Your task to perform on an android device: Open calendar and show me the fourth week of next month Image 0: 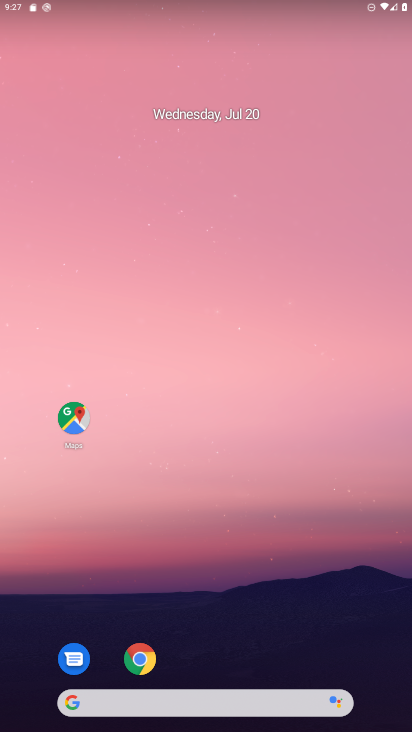
Step 0: drag from (298, 645) to (217, 90)
Your task to perform on an android device: Open calendar and show me the fourth week of next month Image 1: 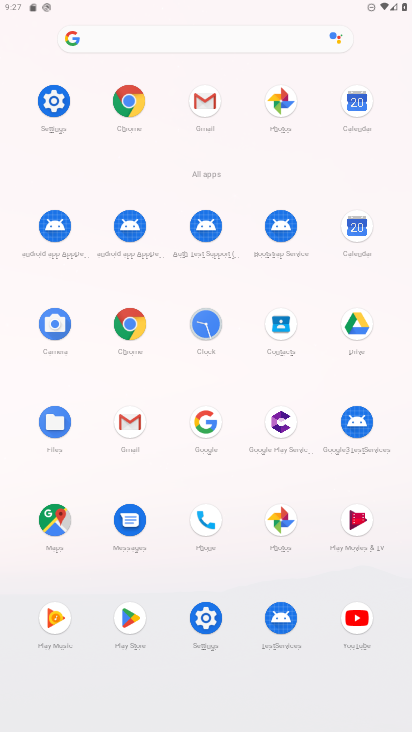
Step 1: click (352, 227)
Your task to perform on an android device: Open calendar and show me the fourth week of next month Image 2: 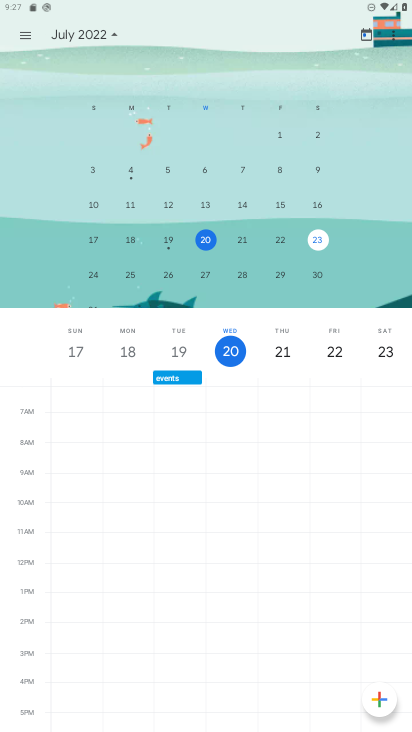
Step 2: drag from (333, 172) to (33, 190)
Your task to perform on an android device: Open calendar and show me the fourth week of next month Image 3: 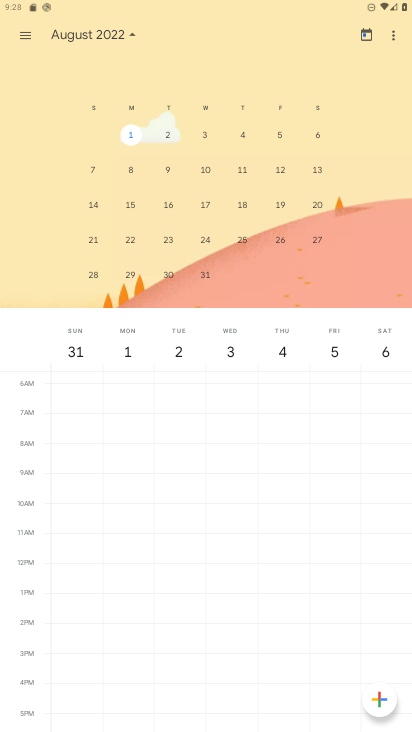
Step 3: click (205, 232)
Your task to perform on an android device: Open calendar and show me the fourth week of next month Image 4: 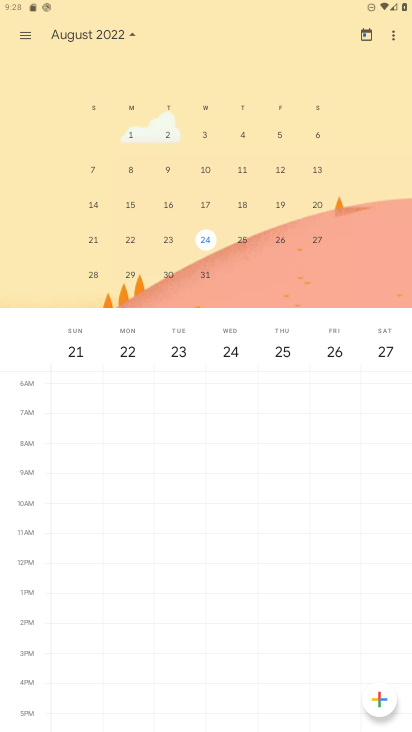
Step 4: task complete